Your task to perform on an android device: Look up the best rated drill on Lowes. Image 0: 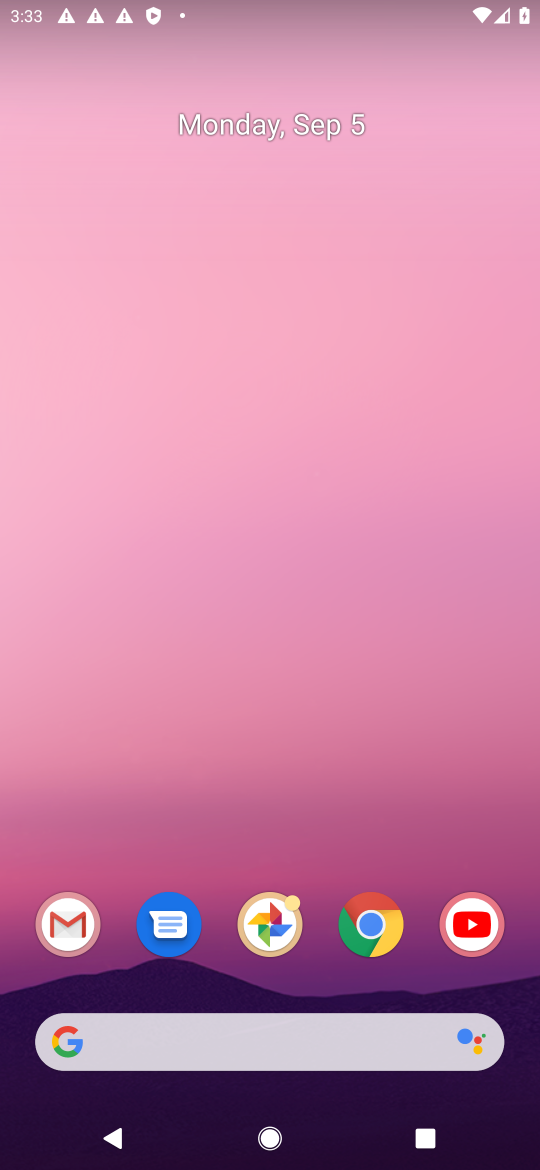
Step 0: drag from (301, 1023) to (281, 300)
Your task to perform on an android device: Look up the best rated drill on Lowes. Image 1: 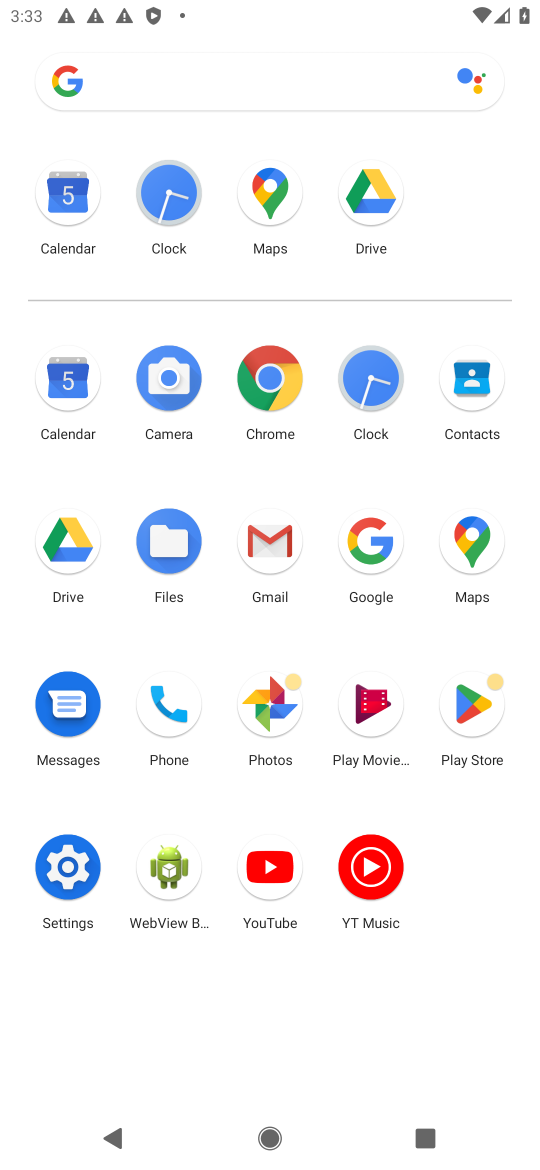
Step 1: click (278, 387)
Your task to perform on an android device: Look up the best rated drill on Lowes. Image 2: 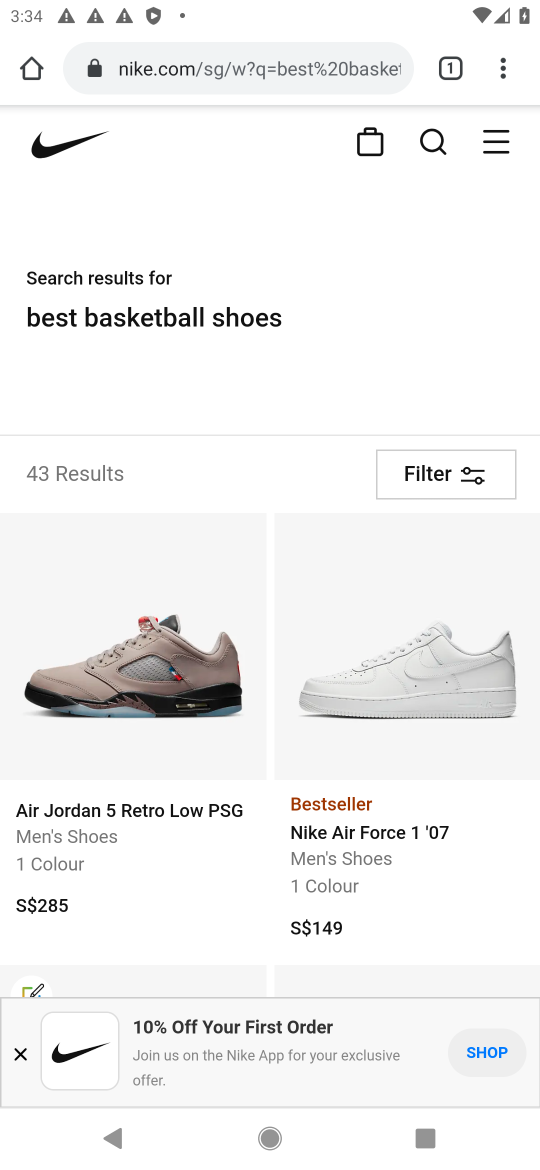
Step 2: click (320, 59)
Your task to perform on an android device: Look up the best rated drill on Lowes. Image 3: 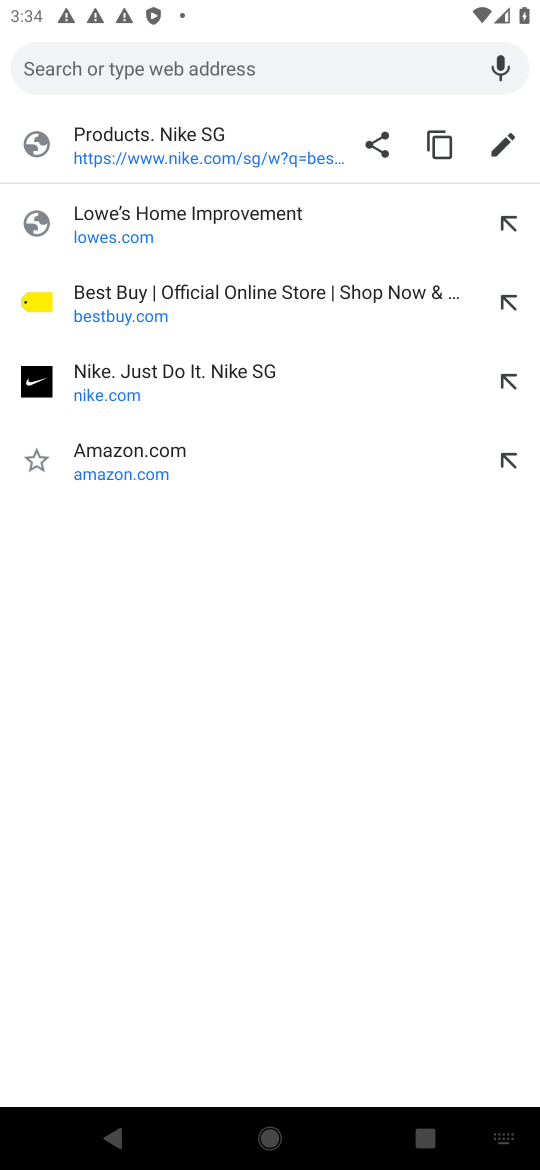
Step 3: type "lowes"
Your task to perform on an android device: Look up the best rated drill on Lowes. Image 4: 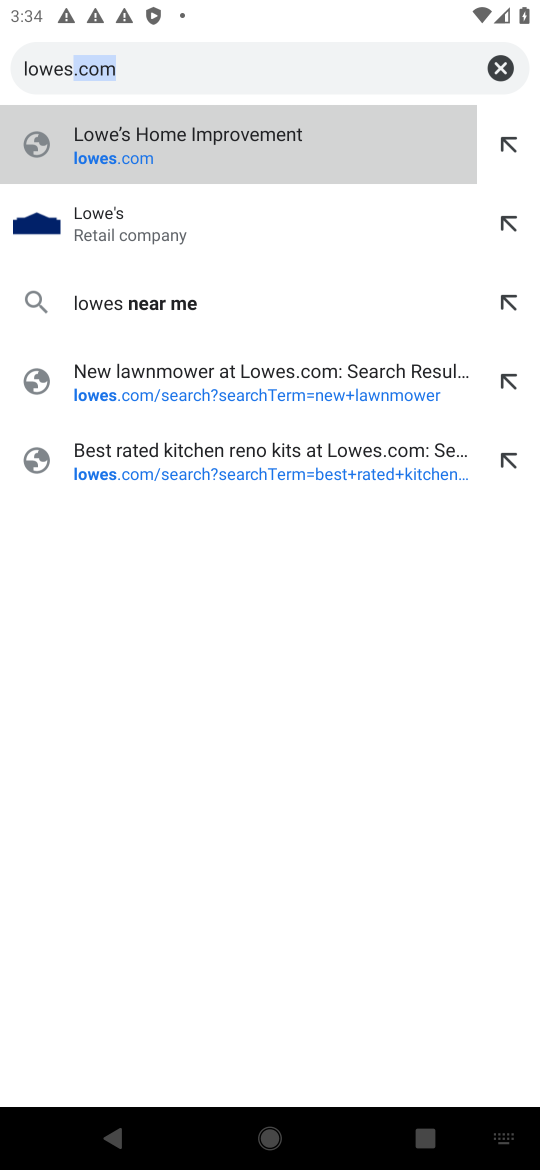
Step 4: click (126, 226)
Your task to perform on an android device: Look up the best rated drill on Lowes. Image 5: 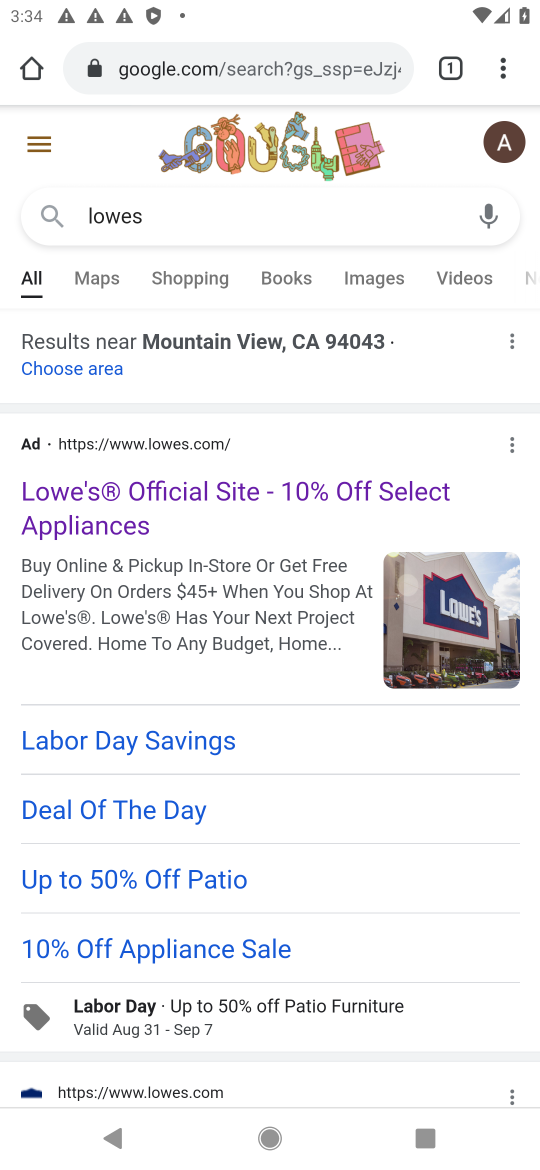
Step 5: drag from (384, 925) to (383, 597)
Your task to perform on an android device: Look up the best rated drill on Lowes. Image 6: 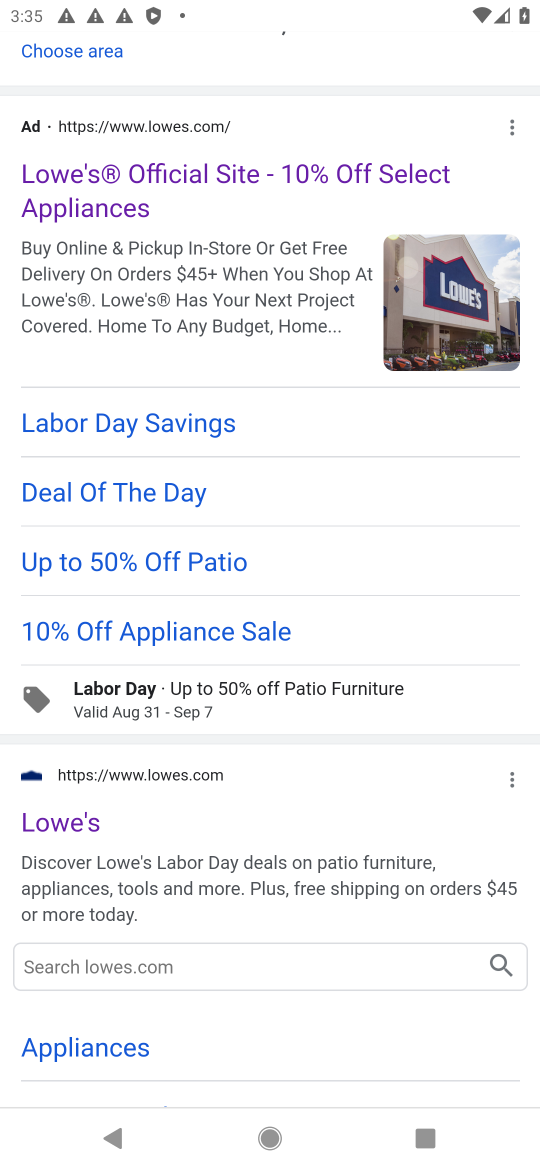
Step 6: click (76, 817)
Your task to perform on an android device: Look up the best rated drill on Lowes. Image 7: 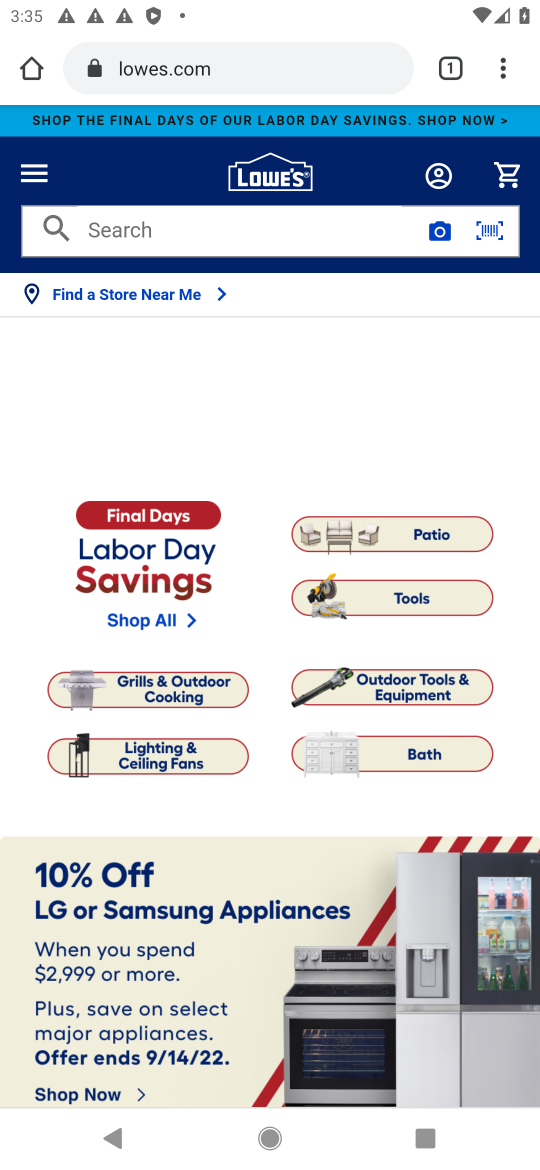
Step 7: click (293, 235)
Your task to perform on an android device: Look up the best rated drill on Lowes. Image 8: 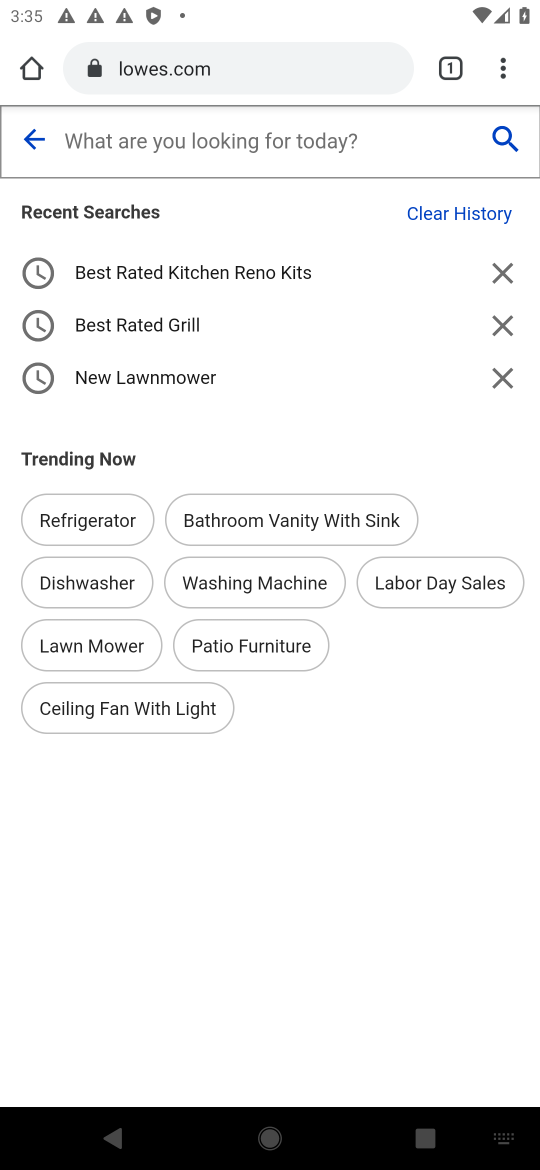
Step 8: type "best rated drill"
Your task to perform on an android device: Look up the best rated drill on Lowes. Image 9: 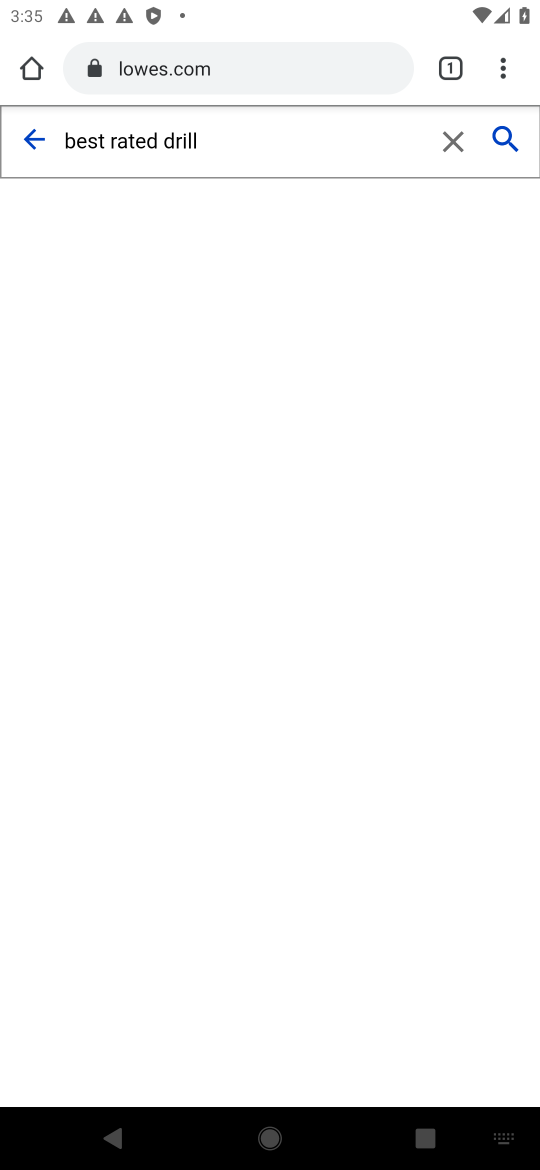
Step 9: click (498, 152)
Your task to perform on an android device: Look up the best rated drill on Lowes. Image 10: 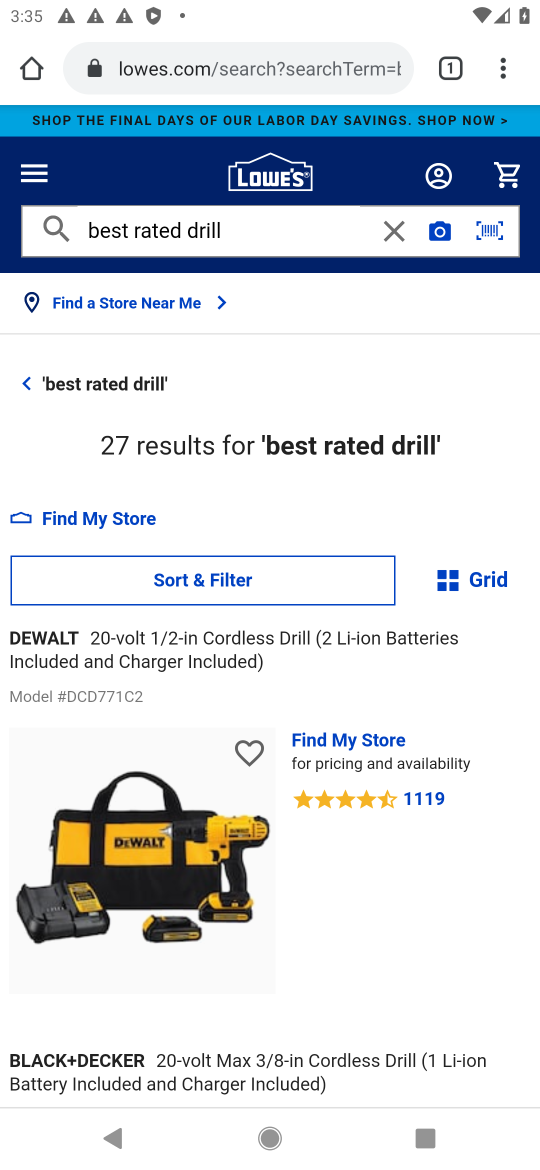
Step 10: task complete